Your task to perform on an android device: When is my next appointment? Image 0: 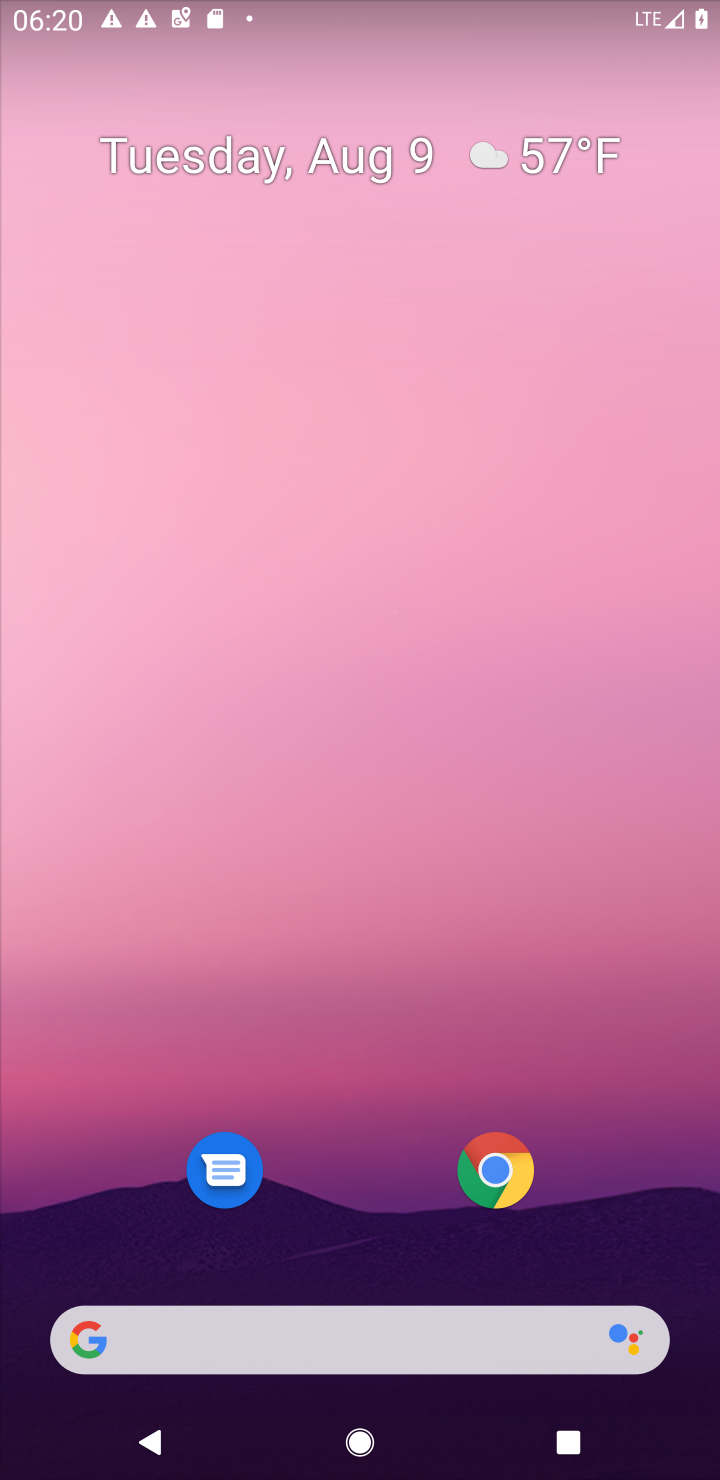
Step 0: press home button
Your task to perform on an android device: When is my next appointment? Image 1: 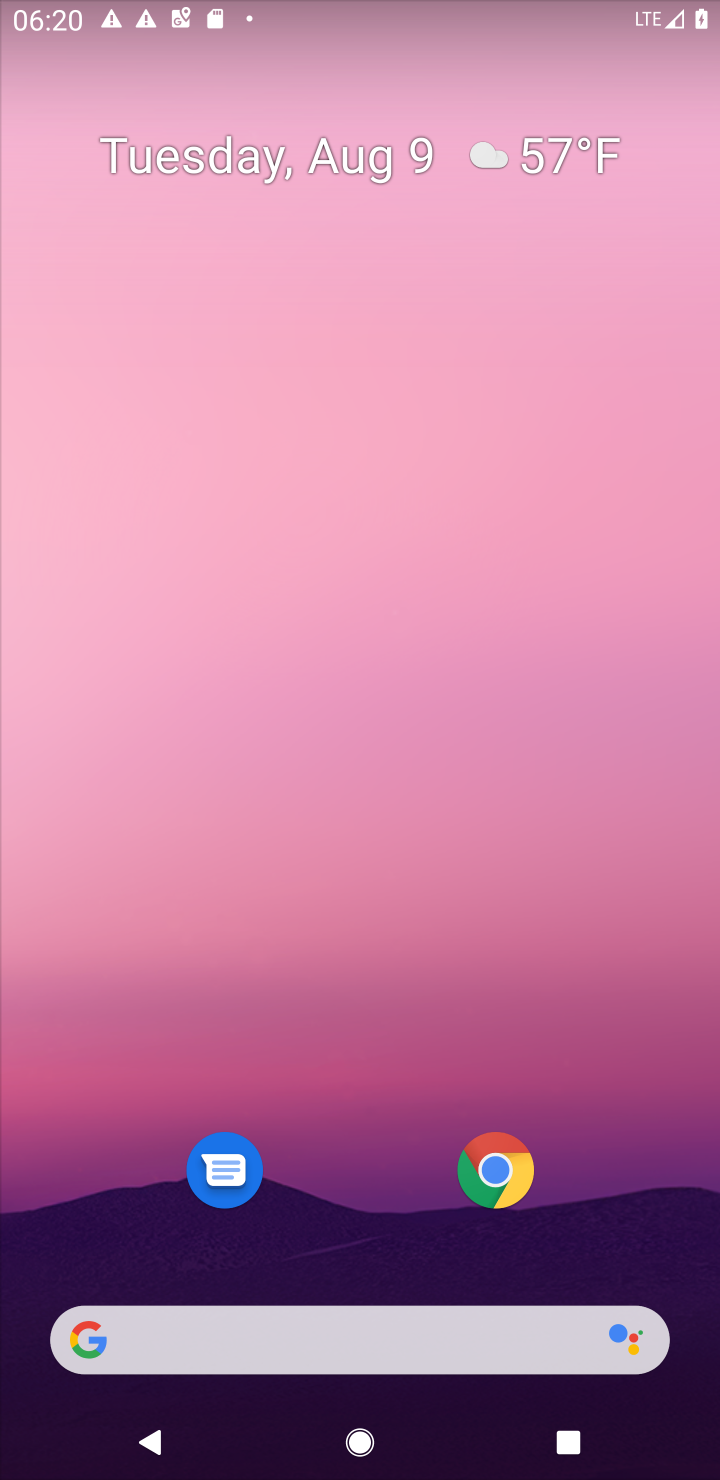
Step 1: drag from (397, 637) to (424, 30)
Your task to perform on an android device: When is my next appointment? Image 2: 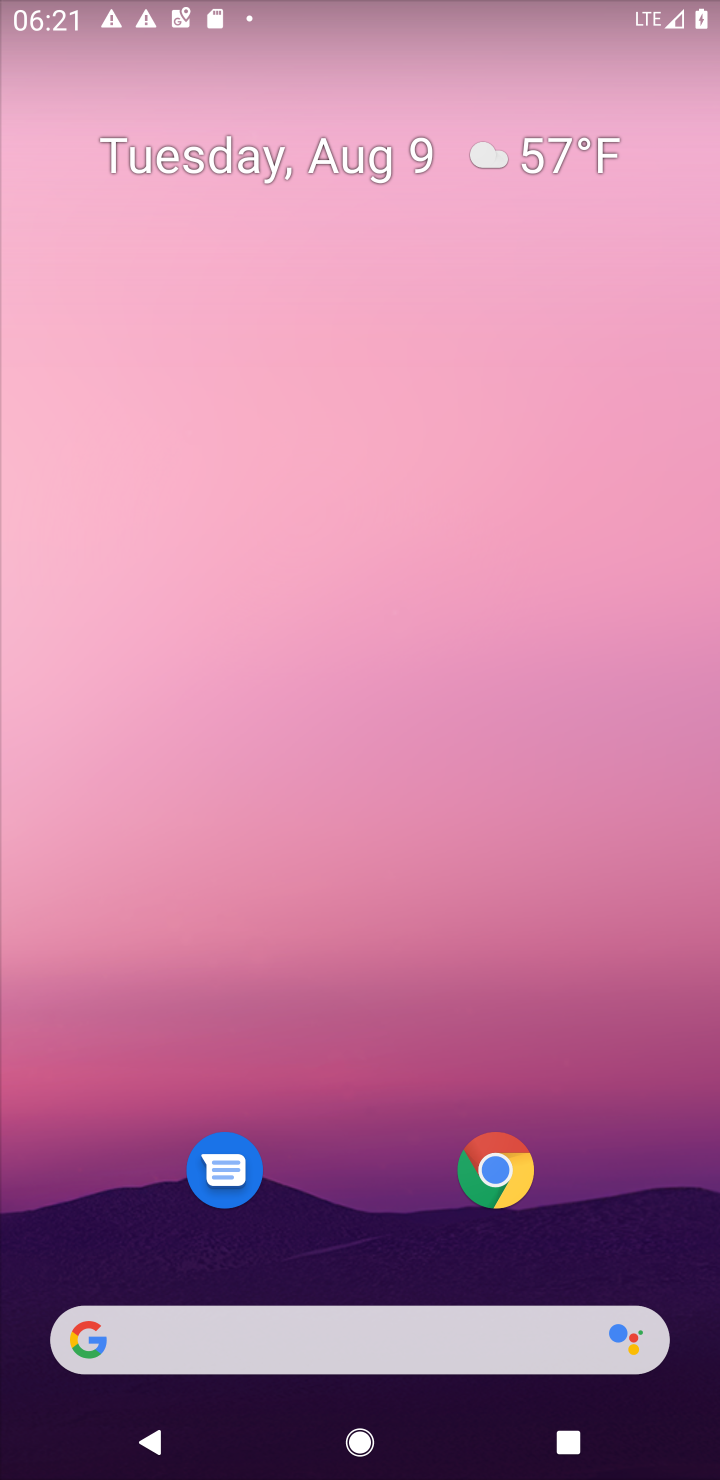
Step 2: drag from (374, 1279) to (503, 65)
Your task to perform on an android device: When is my next appointment? Image 3: 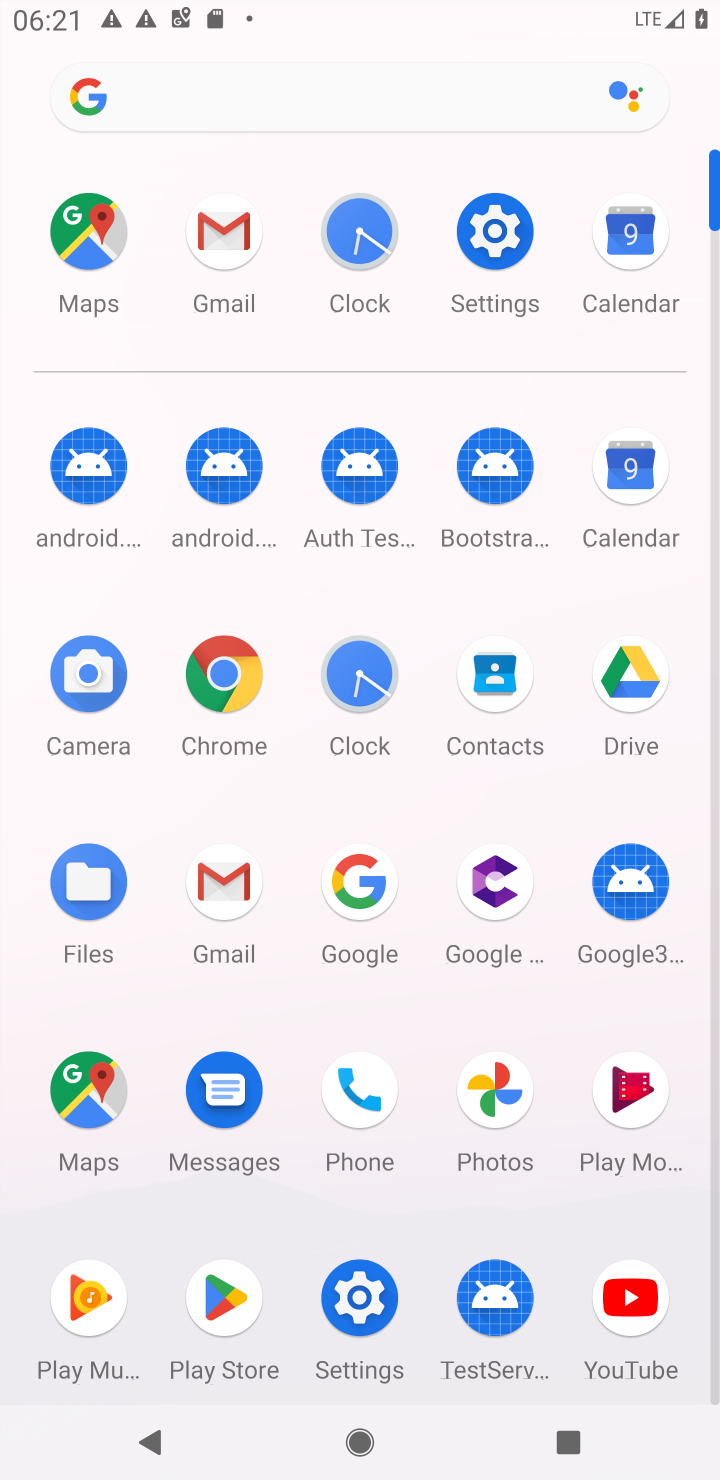
Step 3: click (630, 238)
Your task to perform on an android device: When is my next appointment? Image 4: 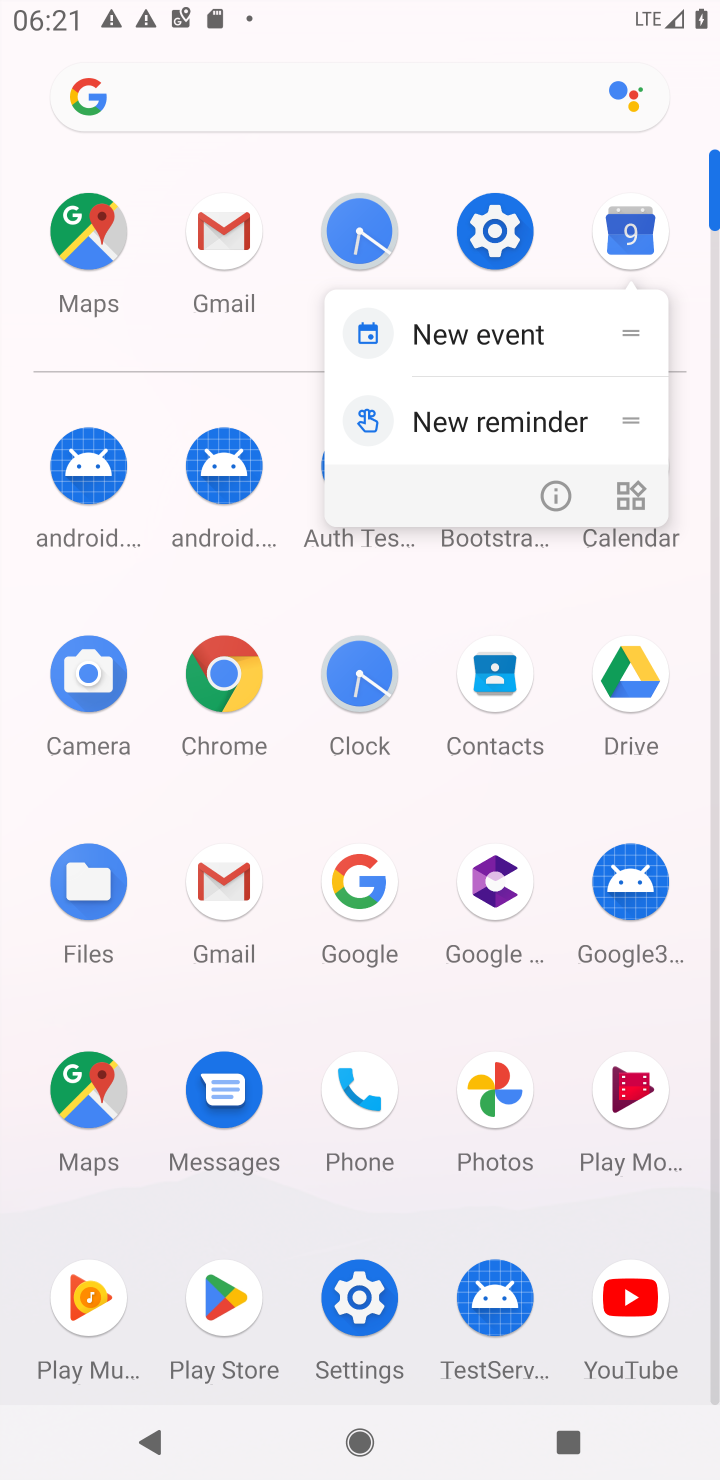
Step 4: click (612, 257)
Your task to perform on an android device: When is my next appointment? Image 5: 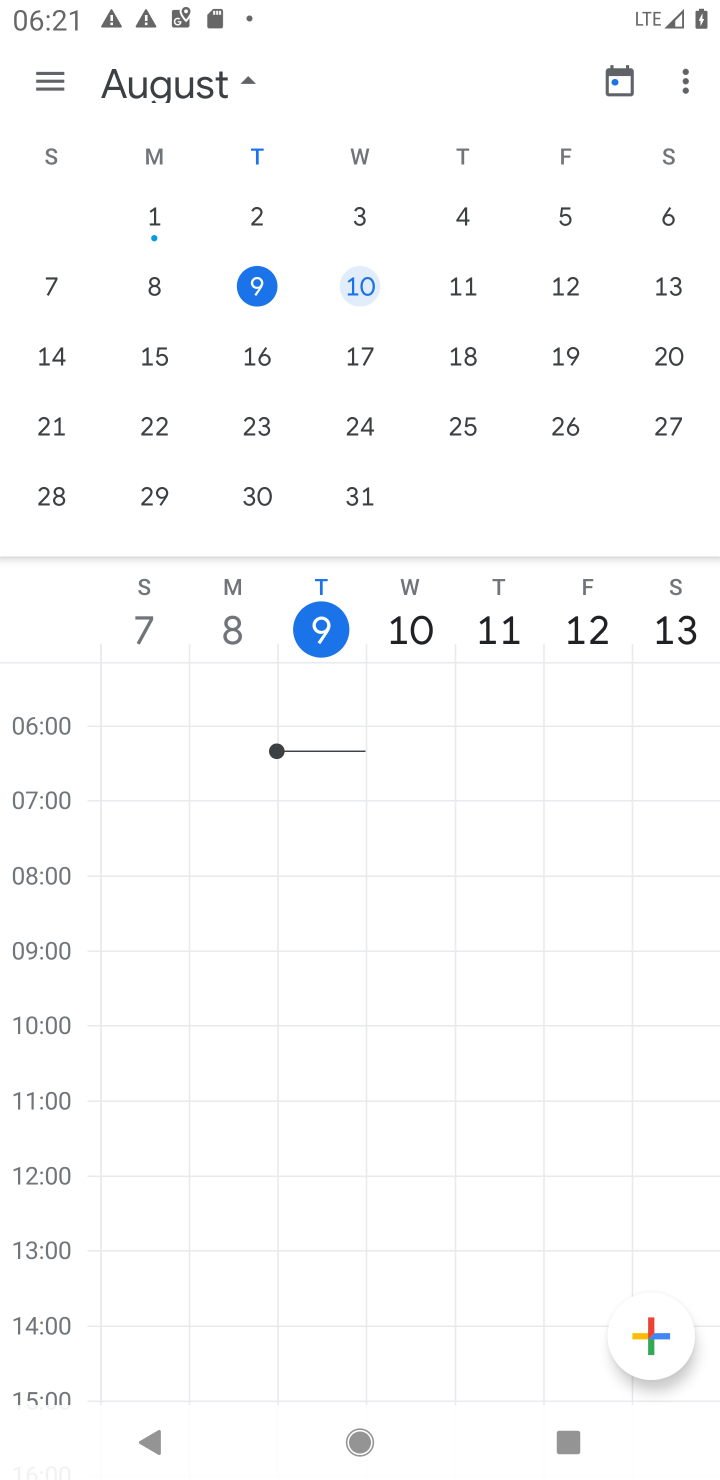
Step 5: click (47, 87)
Your task to perform on an android device: When is my next appointment? Image 6: 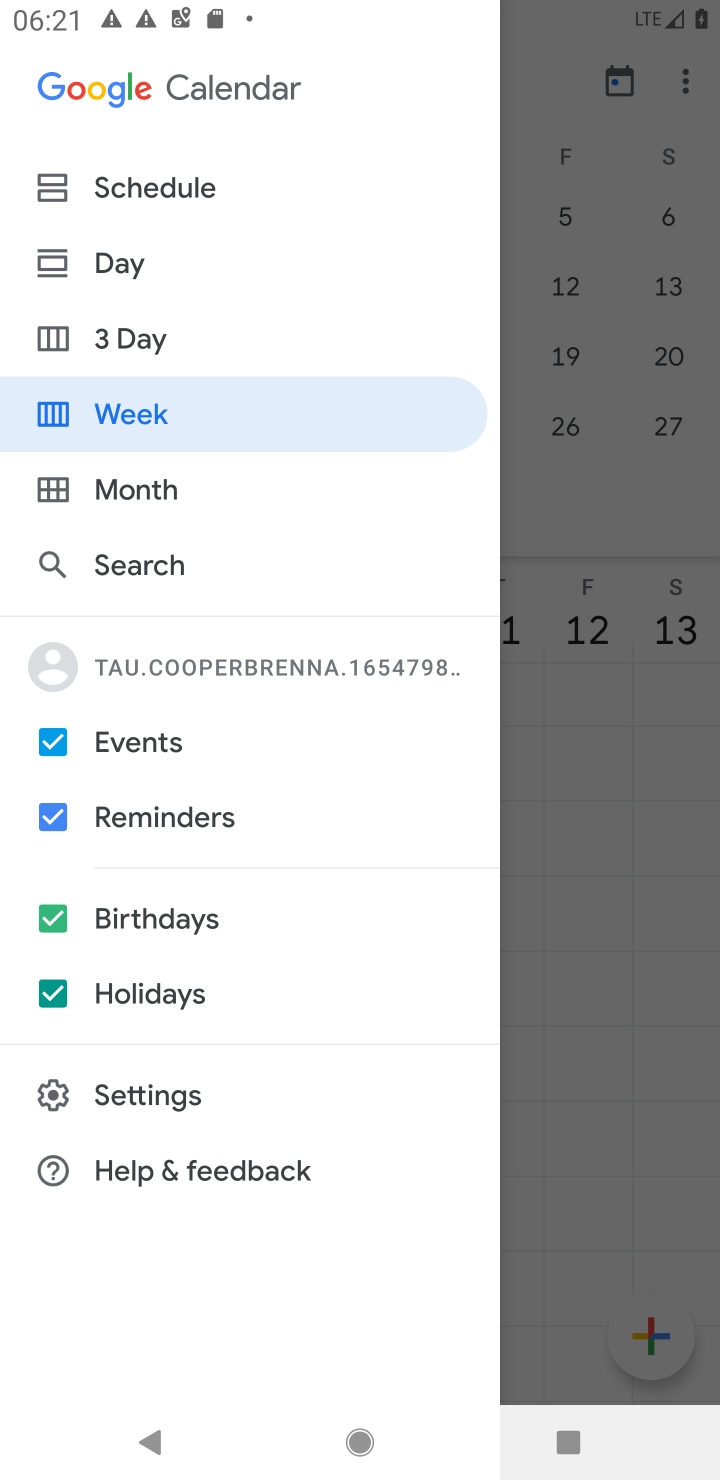
Step 6: click (161, 184)
Your task to perform on an android device: When is my next appointment? Image 7: 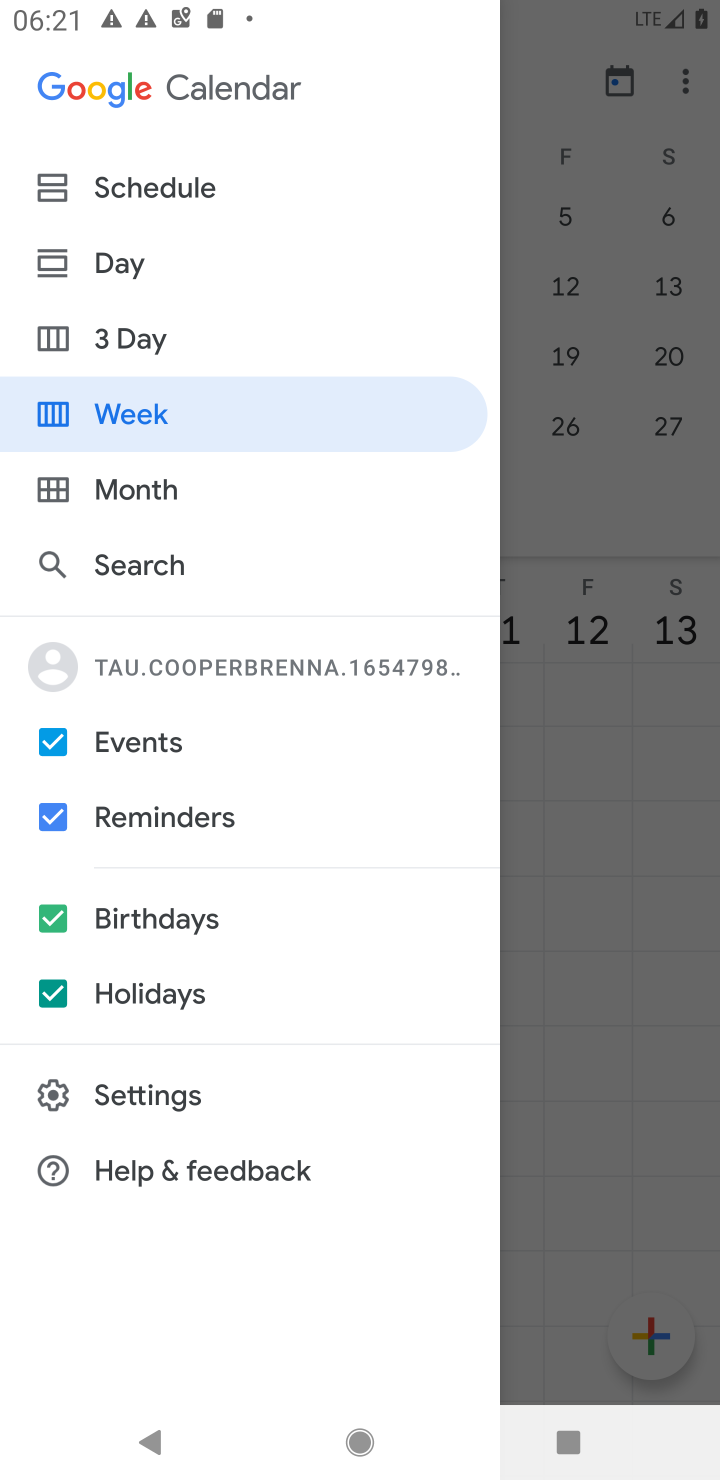
Step 7: click (123, 196)
Your task to perform on an android device: When is my next appointment? Image 8: 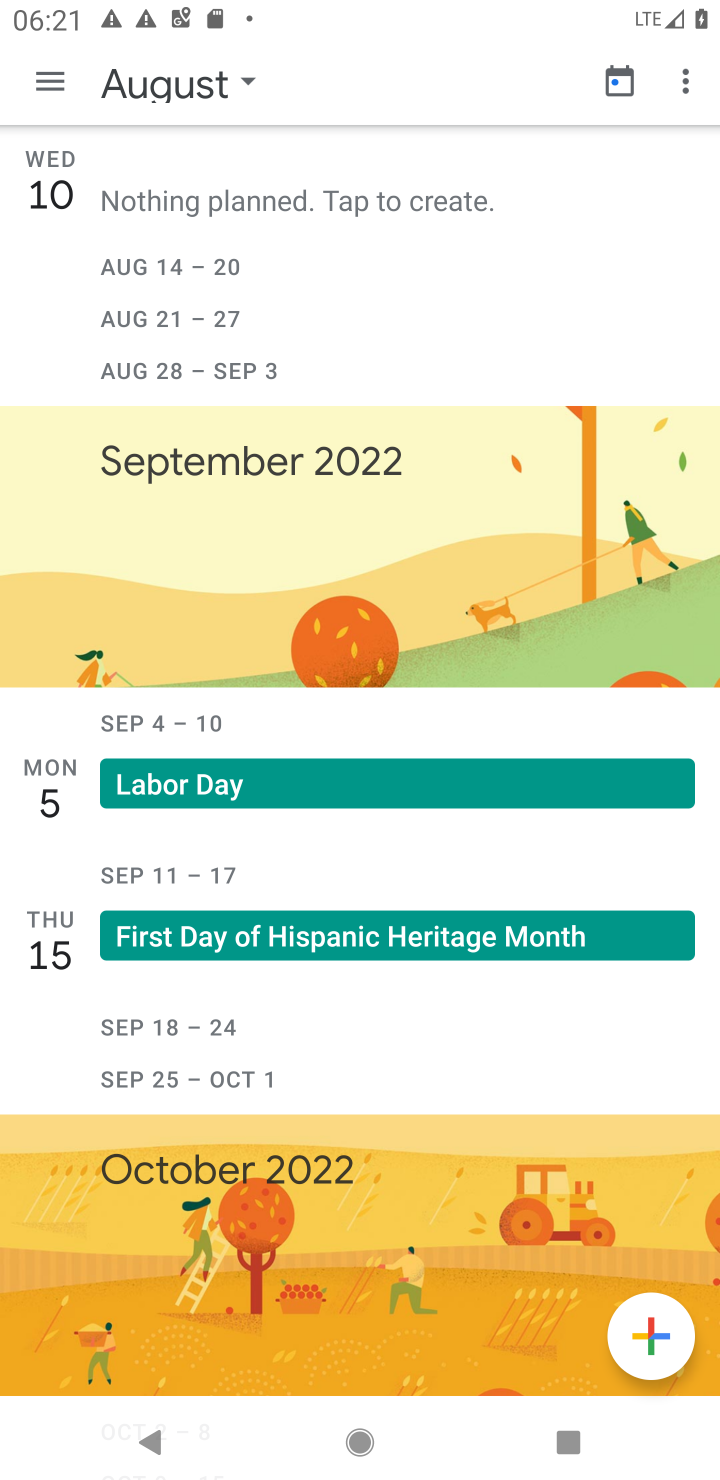
Step 8: task complete